Your task to perform on an android device: open app "Upside-Cash back on gas & food" (install if not already installed) Image 0: 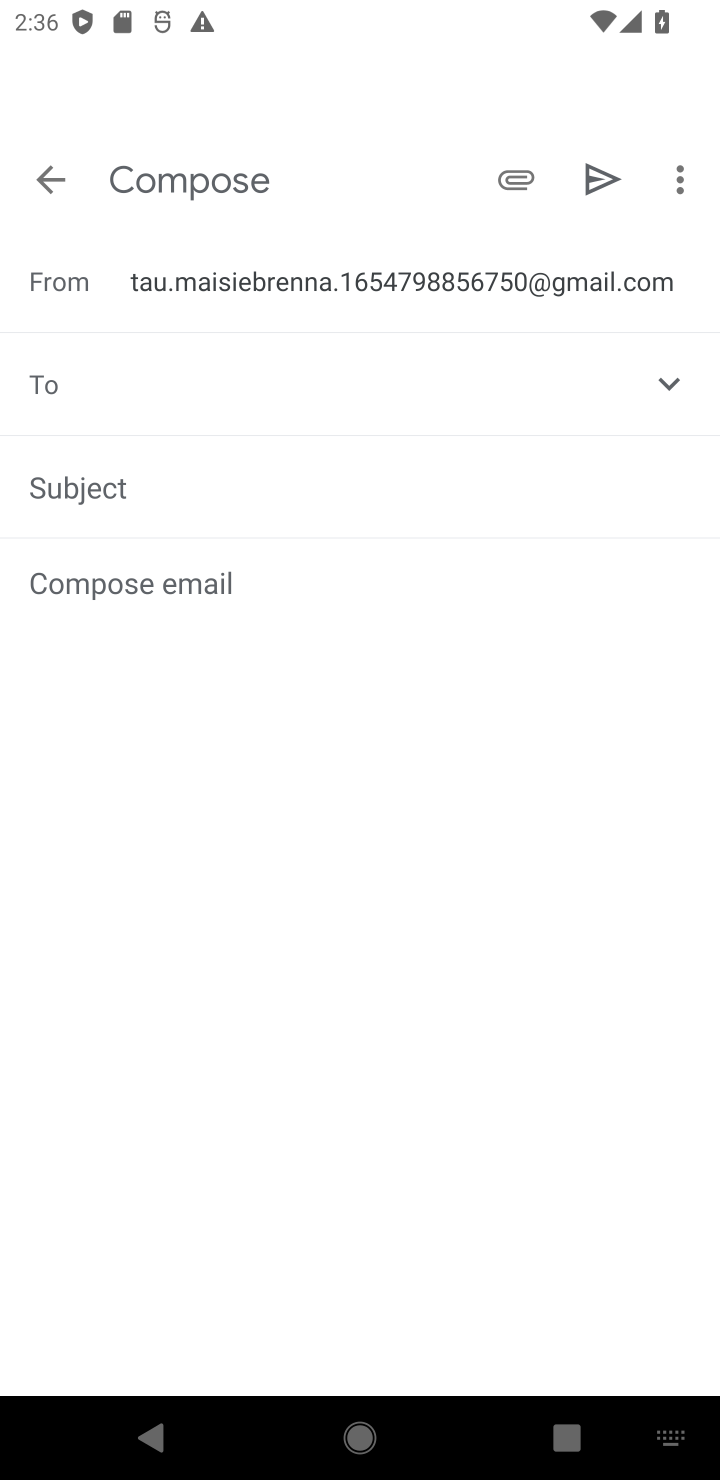
Step 0: press home button
Your task to perform on an android device: open app "Upside-Cash back on gas & food" (install if not already installed) Image 1: 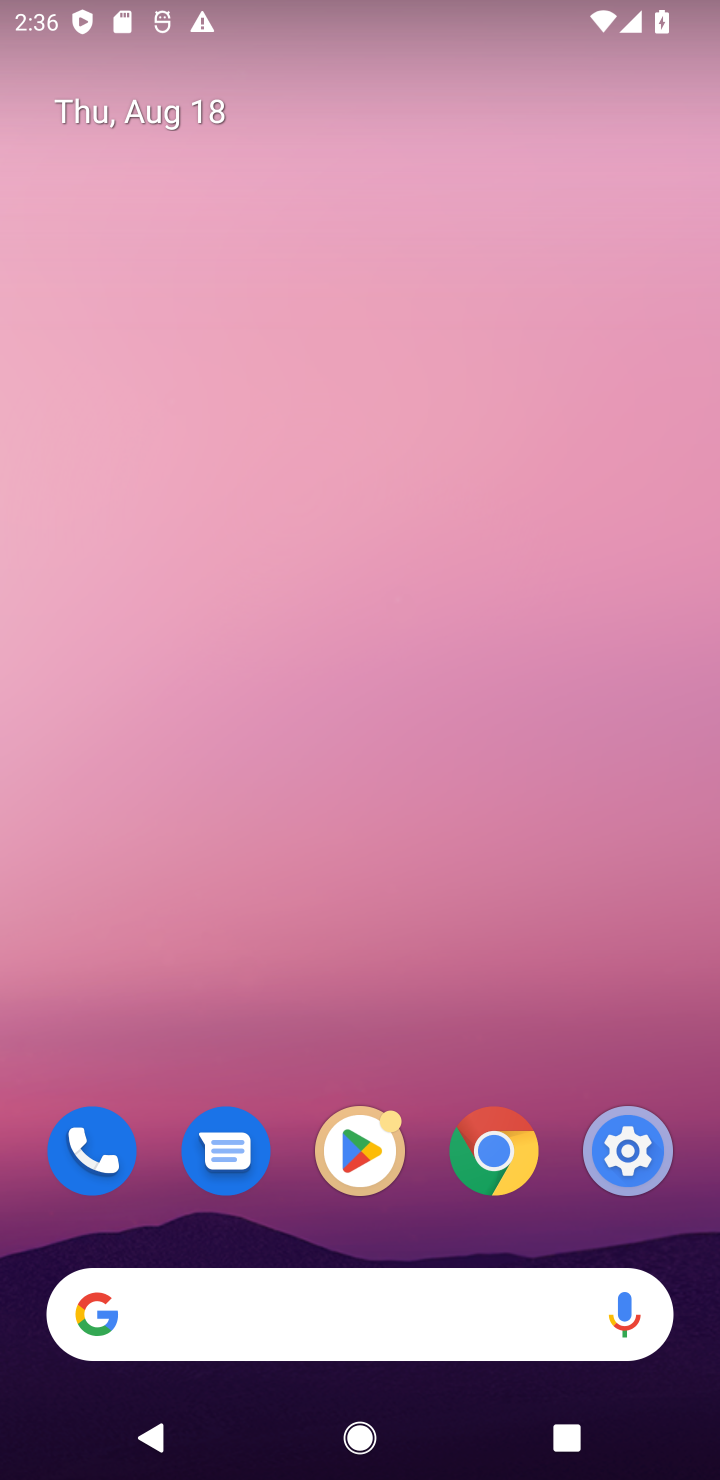
Step 1: click (379, 1147)
Your task to perform on an android device: open app "Upside-Cash back on gas & food" (install if not already installed) Image 2: 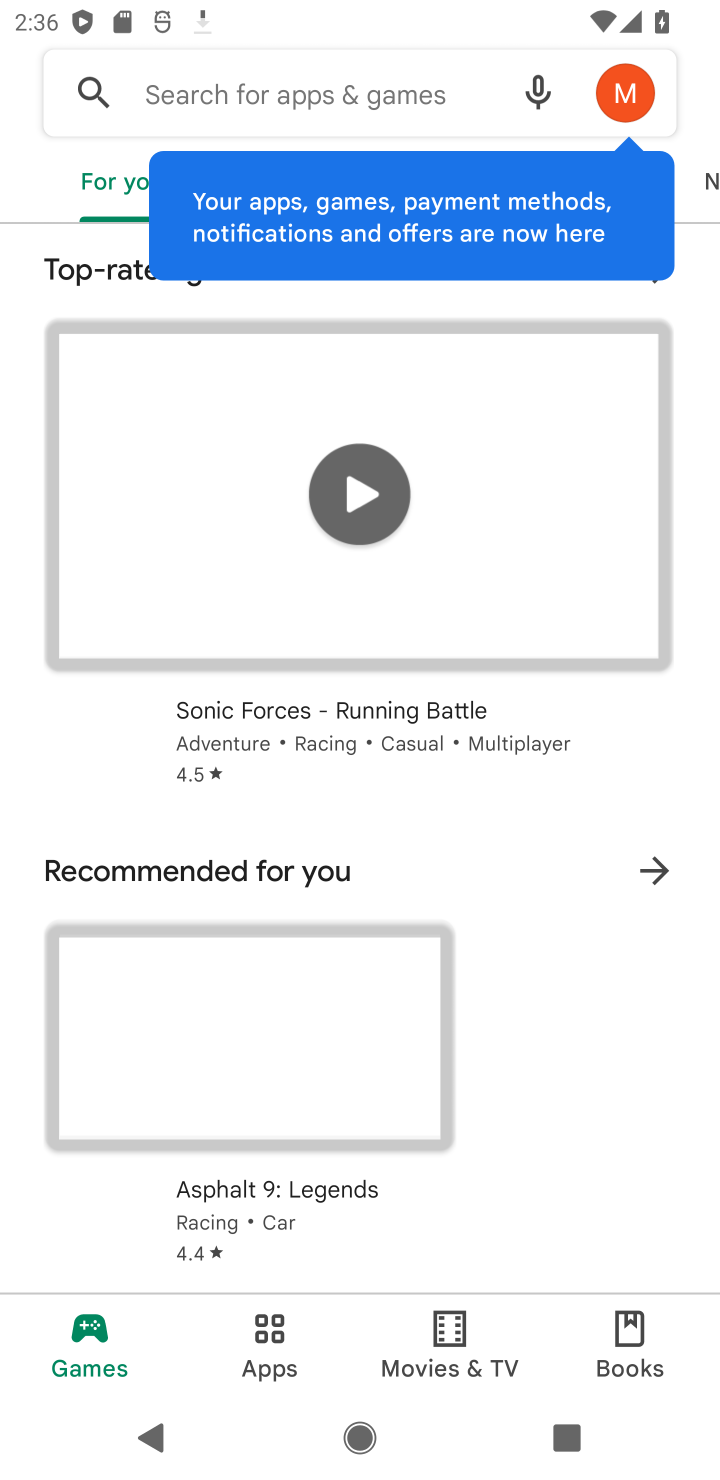
Step 2: click (417, 87)
Your task to perform on an android device: open app "Upside-Cash back on gas & food" (install if not already installed) Image 3: 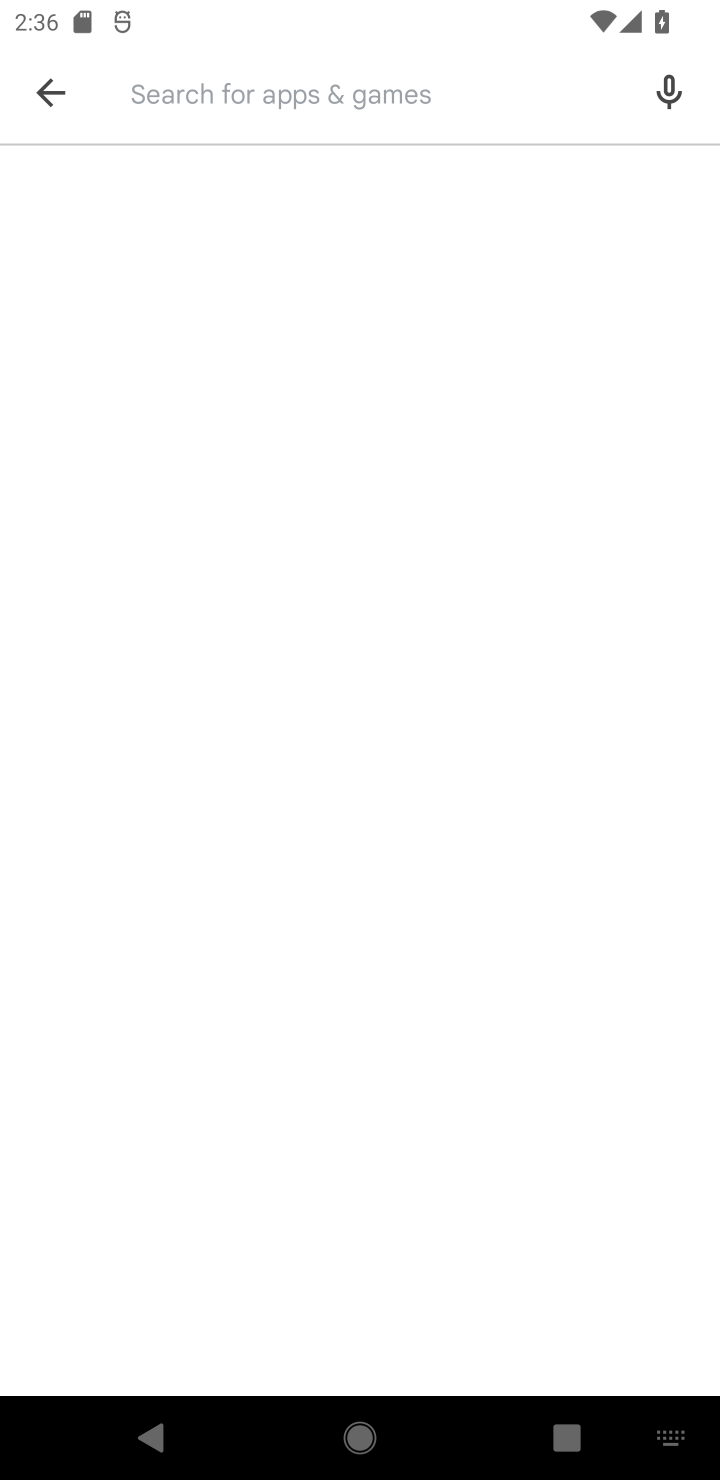
Step 3: type "upside"
Your task to perform on an android device: open app "Upside-Cash back on gas & food" (install if not already installed) Image 4: 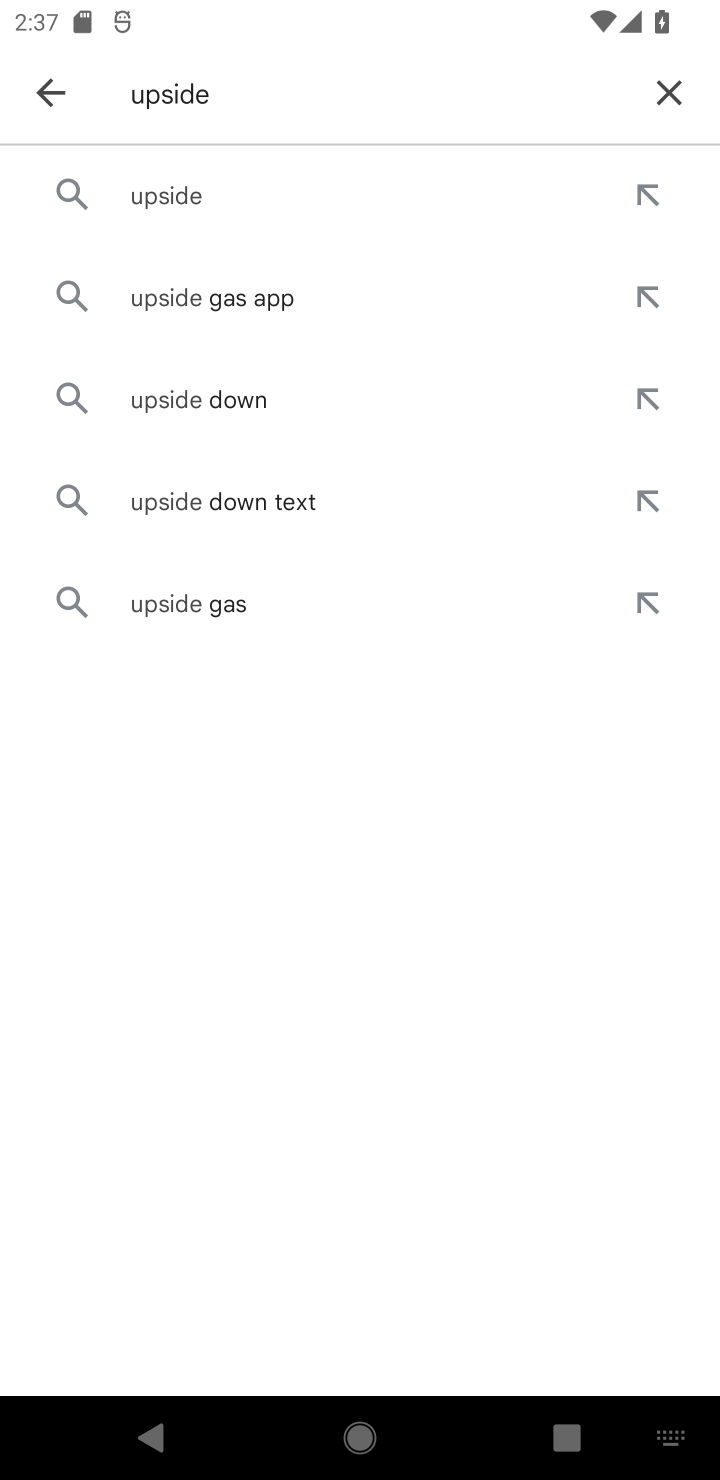
Step 4: click (358, 209)
Your task to perform on an android device: open app "Upside-Cash back on gas & food" (install if not already installed) Image 5: 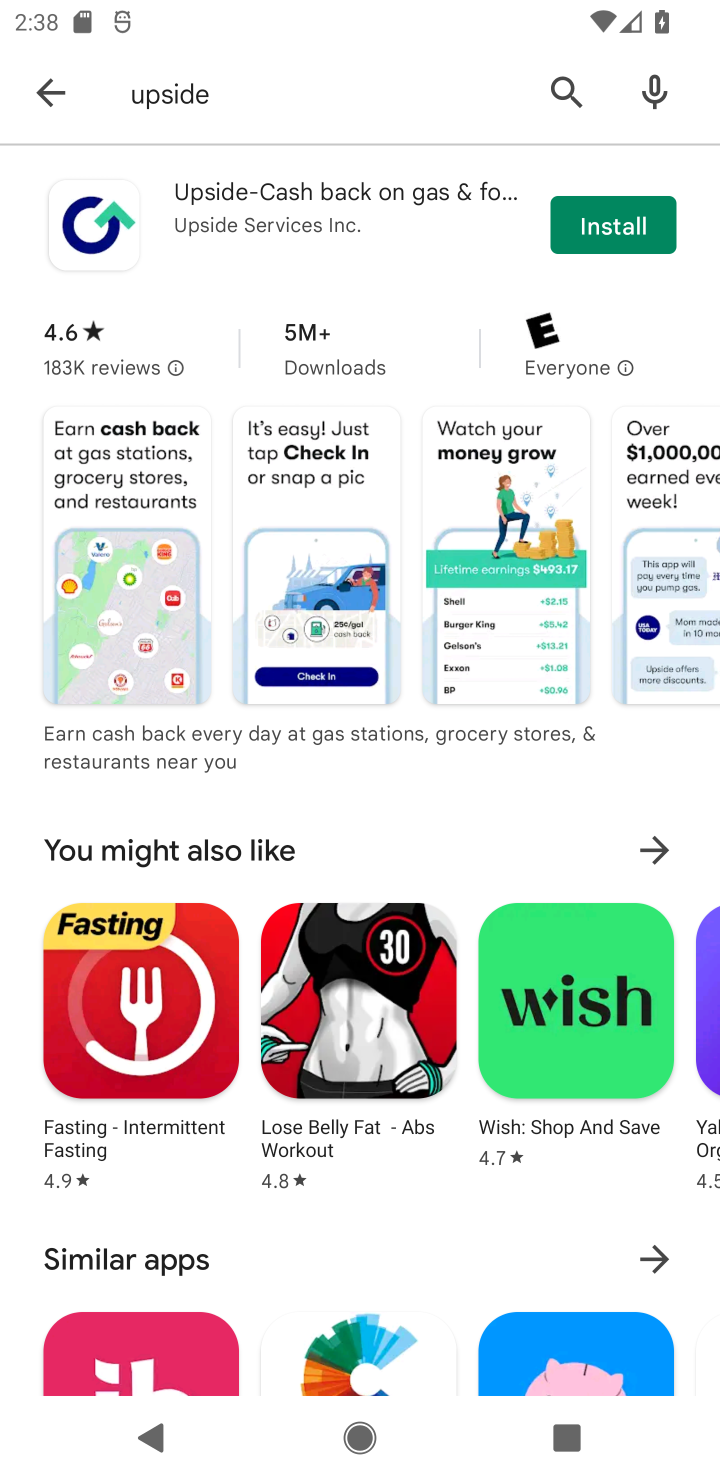
Step 5: click (612, 254)
Your task to perform on an android device: open app "Upside-Cash back on gas & food" (install if not already installed) Image 6: 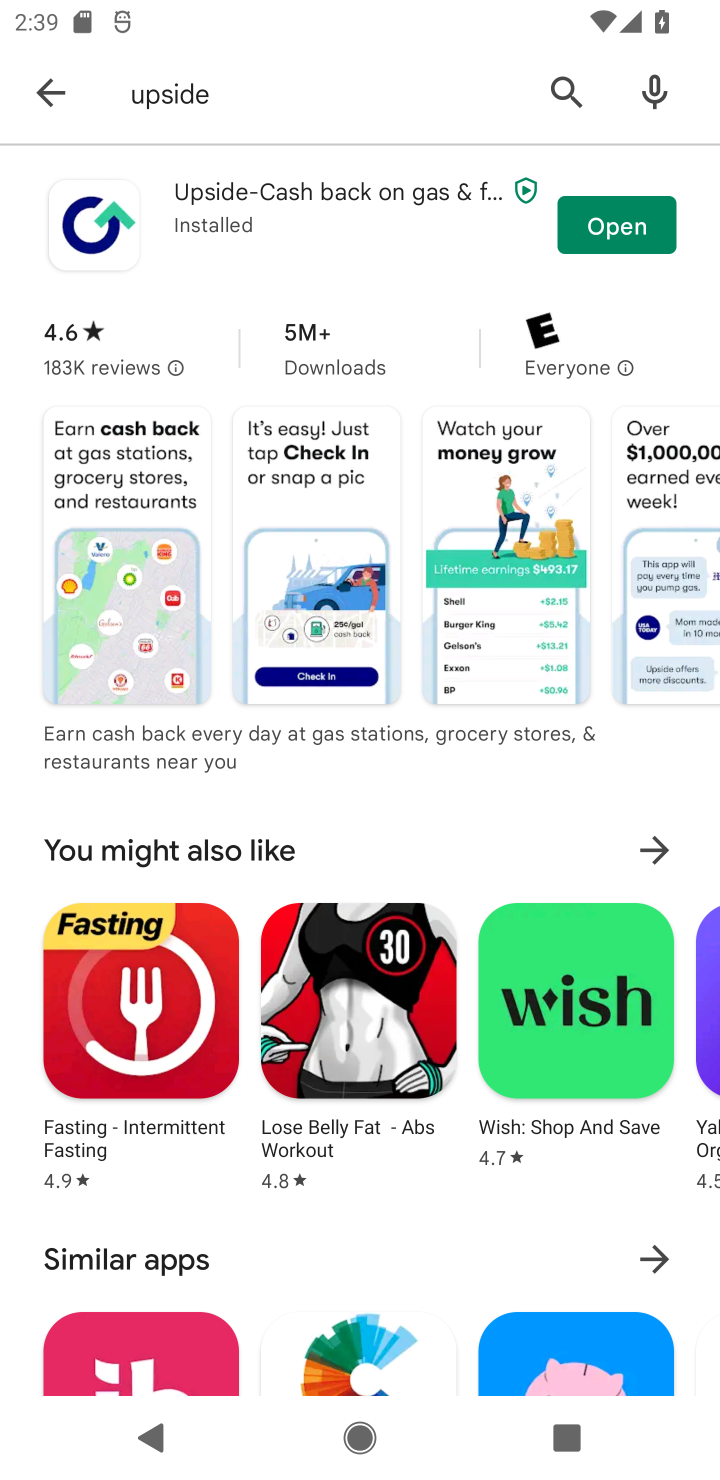
Step 6: task complete